Your task to perform on an android device: turn smart compose on in the gmail app Image 0: 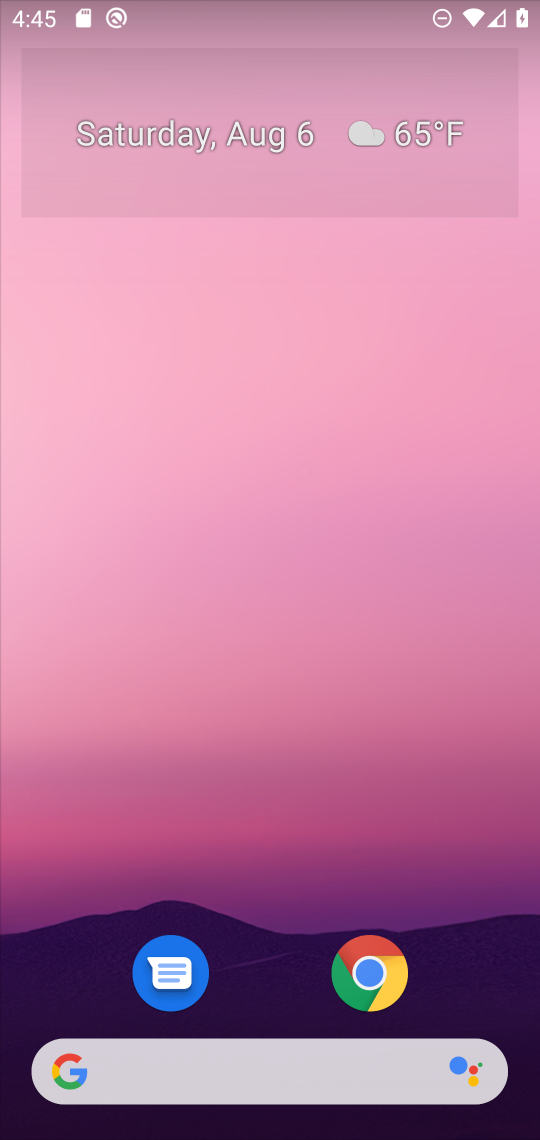
Step 0: drag from (284, 945) to (452, 175)
Your task to perform on an android device: turn smart compose on in the gmail app Image 1: 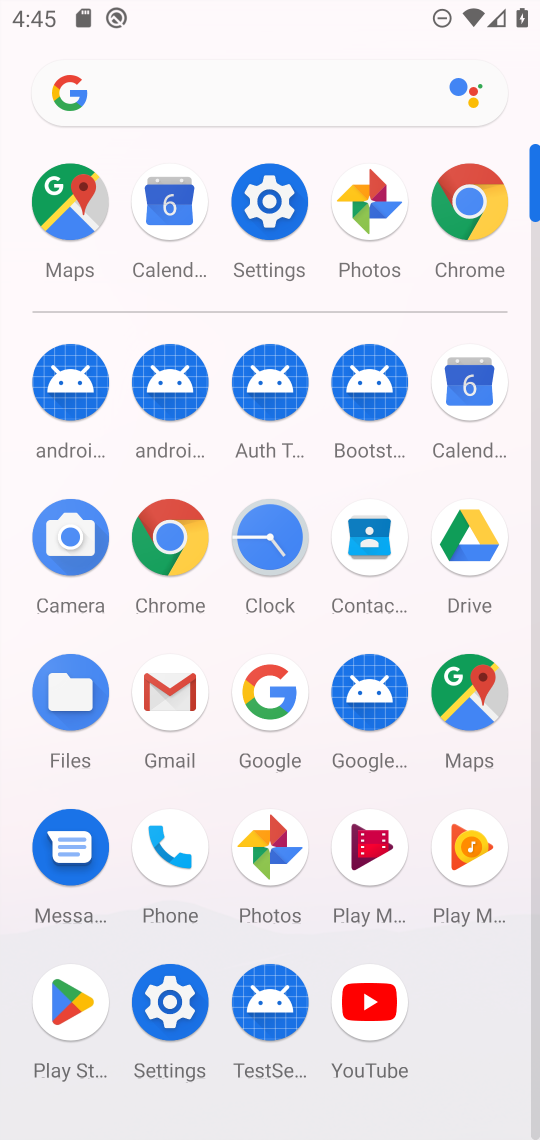
Step 1: click (184, 684)
Your task to perform on an android device: turn smart compose on in the gmail app Image 2: 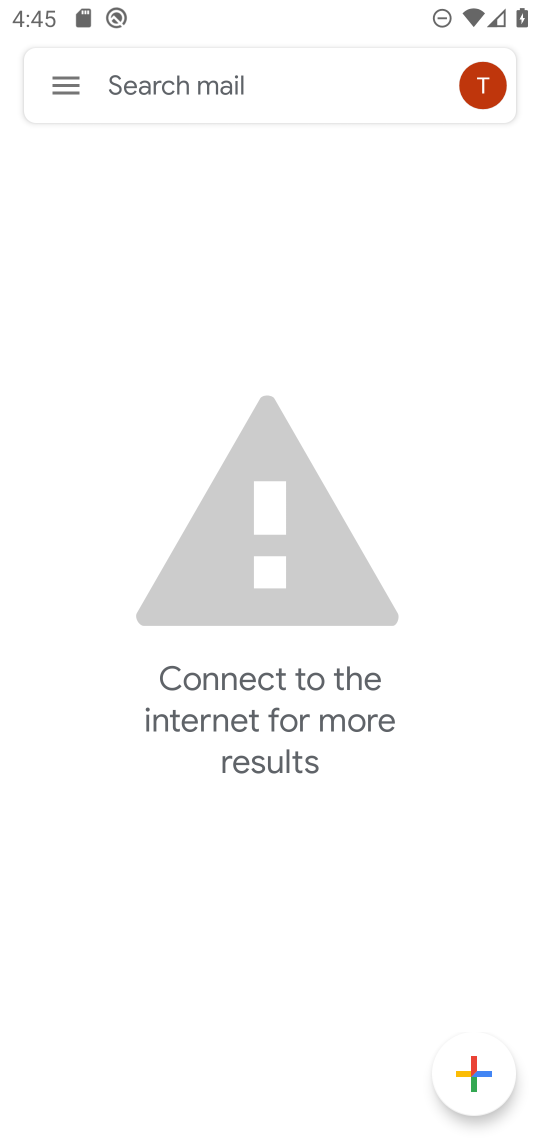
Step 2: click (60, 74)
Your task to perform on an android device: turn smart compose on in the gmail app Image 3: 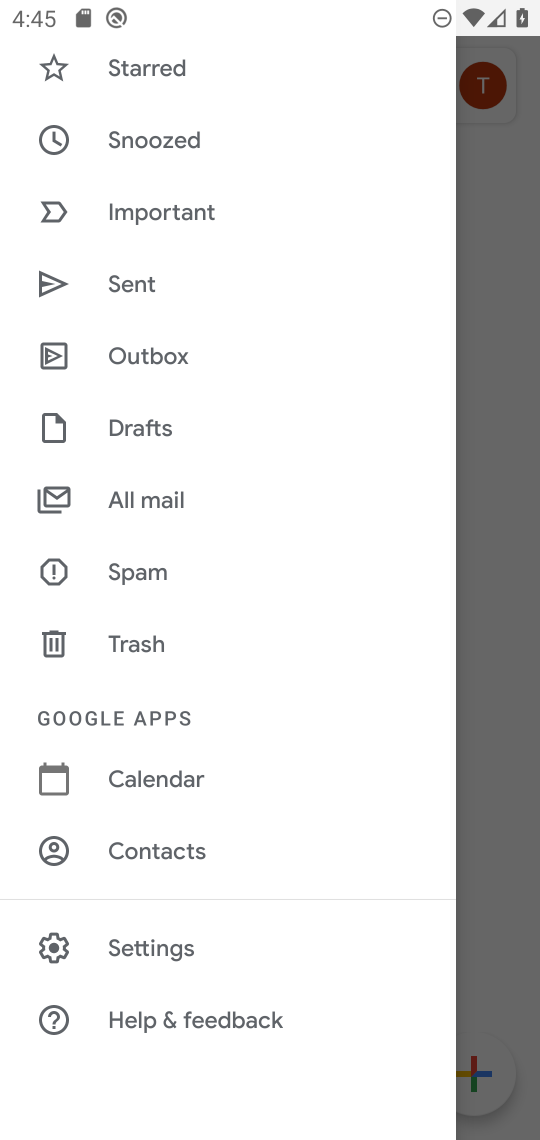
Step 3: click (187, 953)
Your task to perform on an android device: turn smart compose on in the gmail app Image 4: 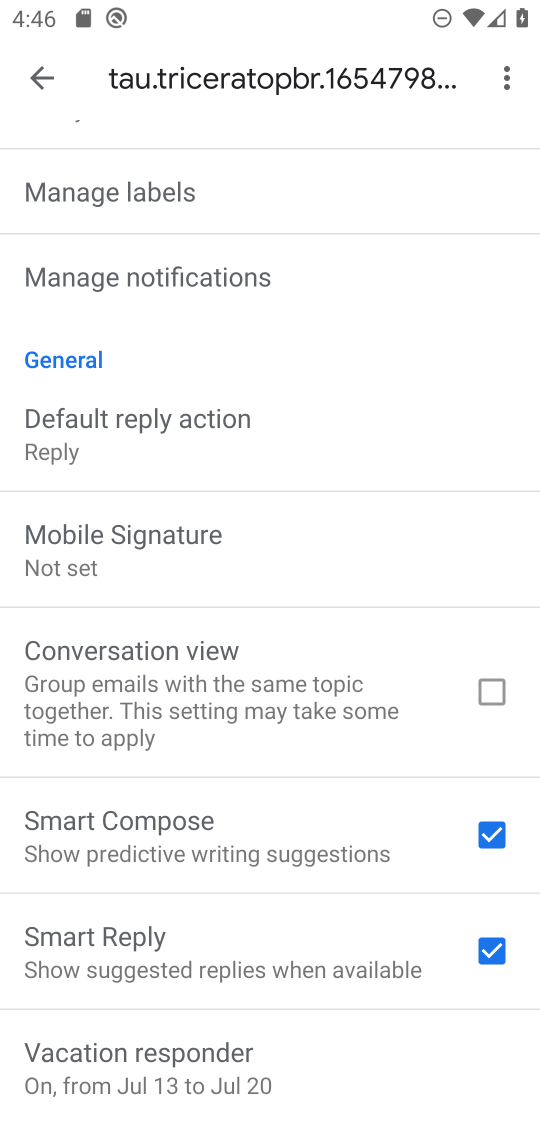
Step 4: task complete